Your task to perform on an android device: Open maps Image 0: 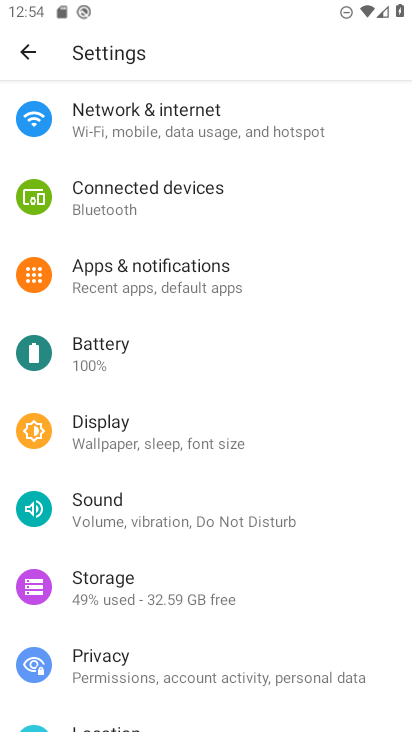
Step 0: press home button
Your task to perform on an android device: Open maps Image 1: 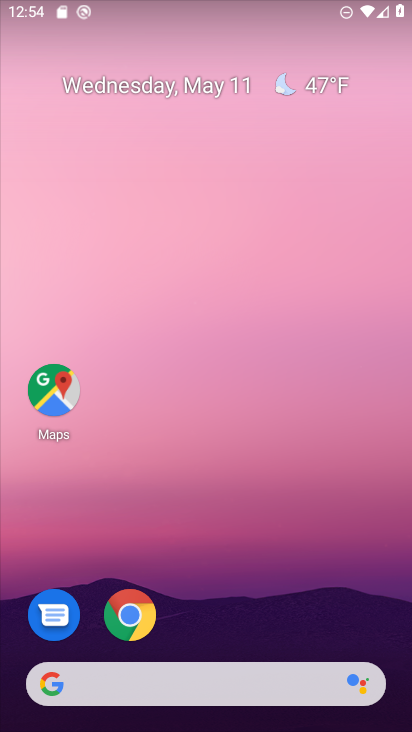
Step 1: drag from (234, 352) to (230, 158)
Your task to perform on an android device: Open maps Image 2: 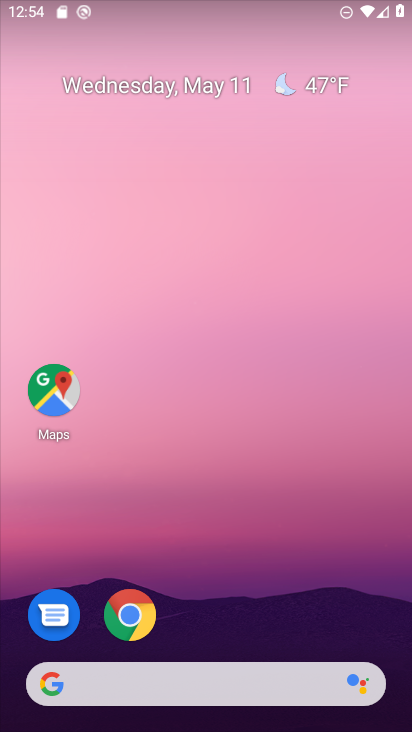
Step 2: drag from (292, 581) to (238, 81)
Your task to perform on an android device: Open maps Image 3: 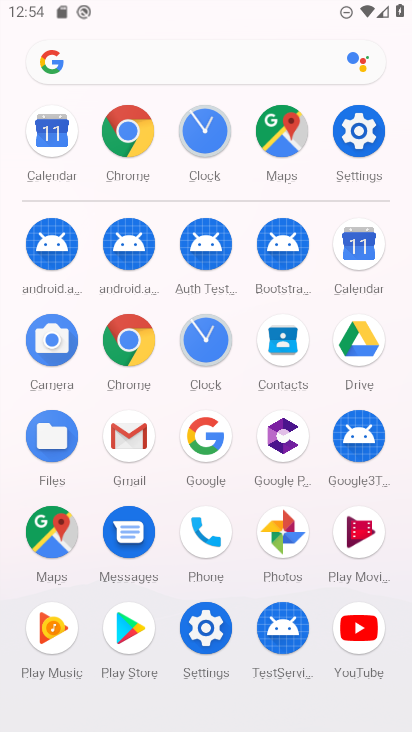
Step 3: click (287, 126)
Your task to perform on an android device: Open maps Image 4: 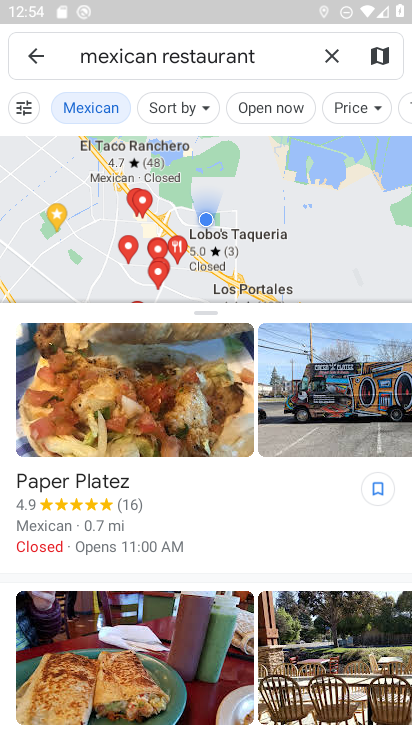
Step 4: task complete